Your task to perform on an android device: make emails show in primary in the gmail app Image 0: 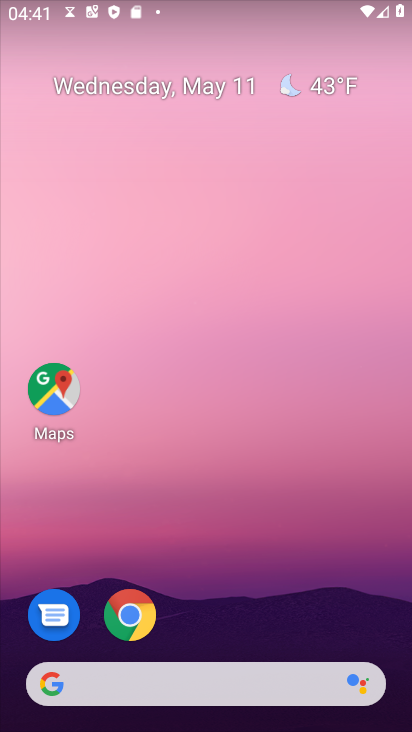
Step 0: drag from (287, 485) to (203, 19)
Your task to perform on an android device: make emails show in primary in the gmail app Image 1: 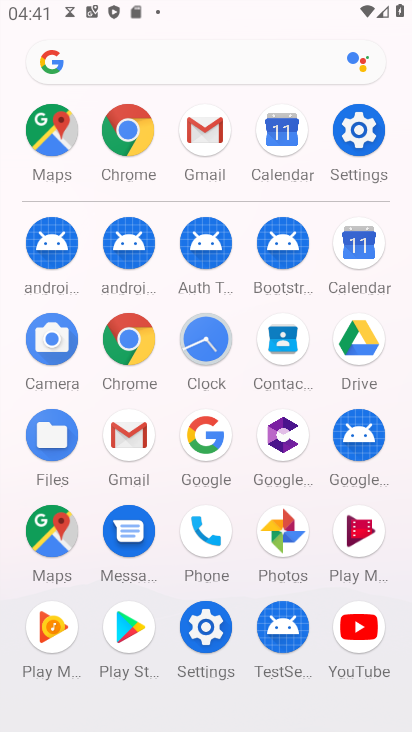
Step 1: drag from (7, 528) to (21, 147)
Your task to perform on an android device: make emails show in primary in the gmail app Image 2: 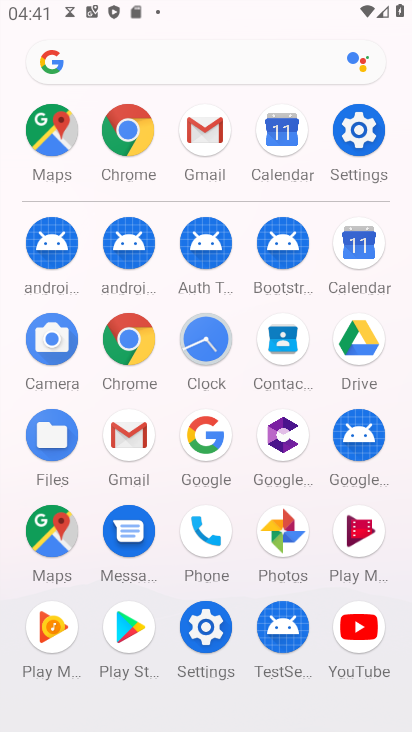
Step 2: click (124, 427)
Your task to perform on an android device: make emails show in primary in the gmail app Image 3: 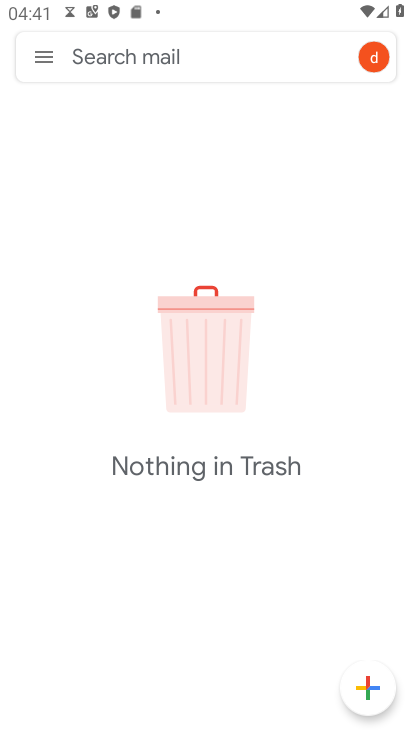
Step 3: click (61, 51)
Your task to perform on an android device: make emails show in primary in the gmail app Image 4: 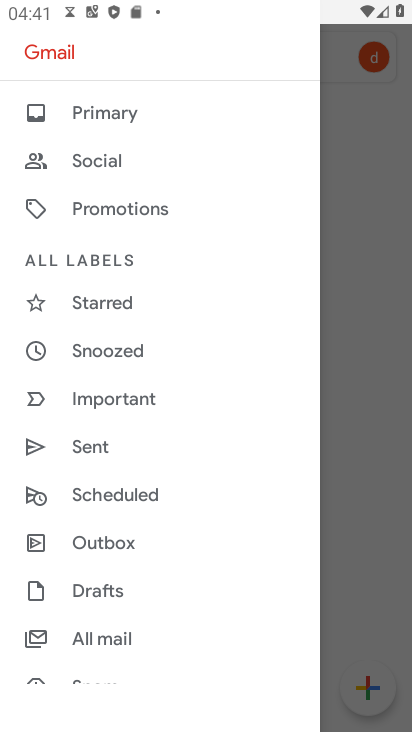
Step 4: click (121, 116)
Your task to perform on an android device: make emails show in primary in the gmail app Image 5: 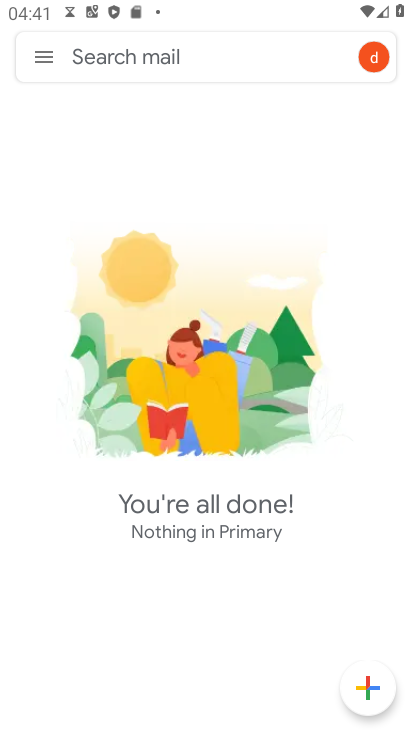
Step 5: click (33, 38)
Your task to perform on an android device: make emails show in primary in the gmail app Image 6: 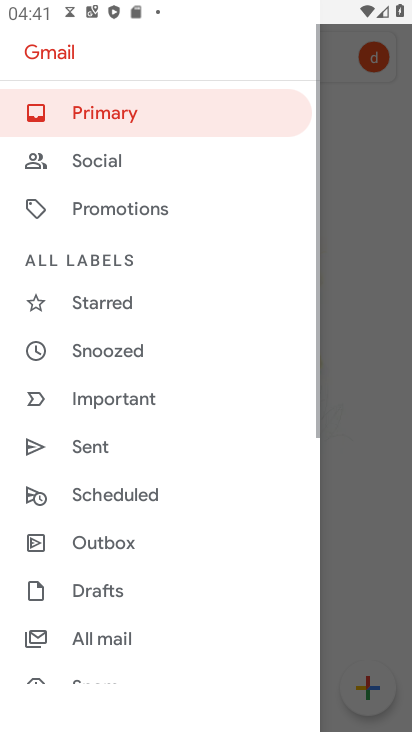
Step 6: drag from (130, 655) to (175, 103)
Your task to perform on an android device: make emails show in primary in the gmail app Image 7: 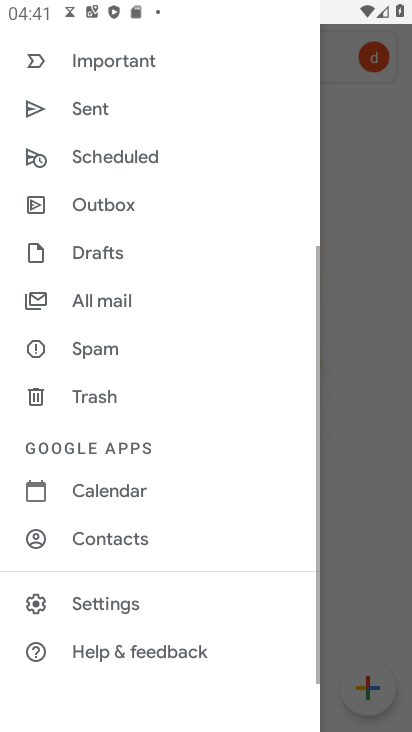
Step 7: click (118, 611)
Your task to perform on an android device: make emails show in primary in the gmail app Image 8: 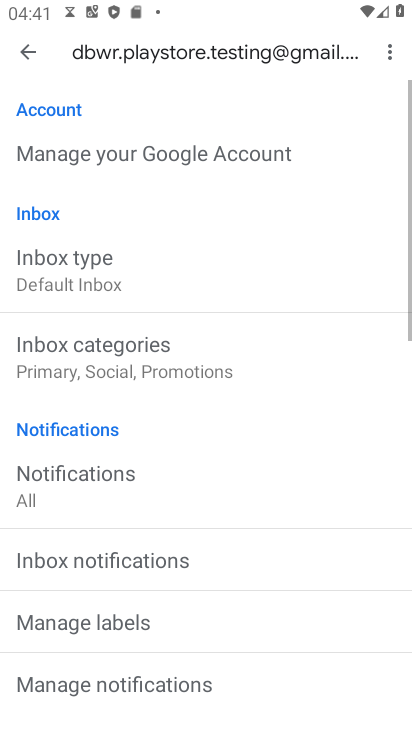
Step 8: click (136, 274)
Your task to perform on an android device: make emails show in primary in the gmail app Image 9: 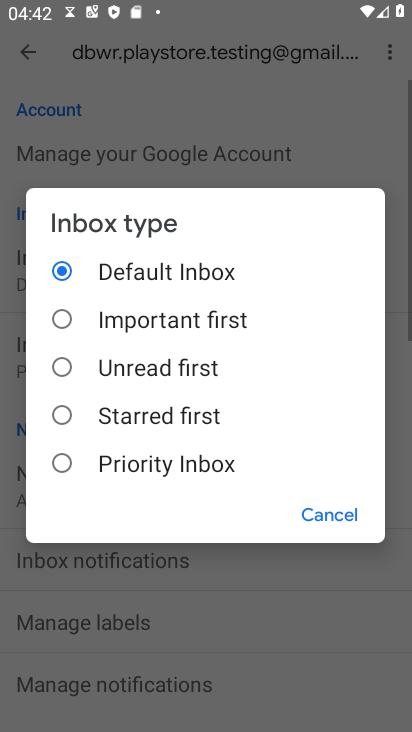
Step 9: click (136, 274)
Your task to perform on an android device: make emails show in primary in the gmail app Image 10: 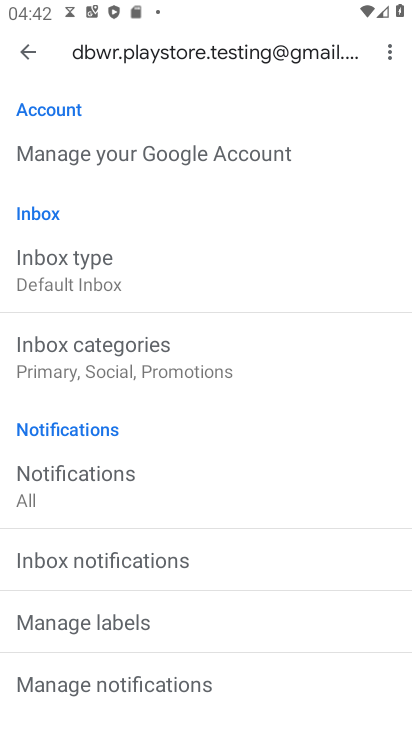
Step 10: click (138, 351)
Your task to perform on an android device: make emails show in primary in the gmail app Image 11: 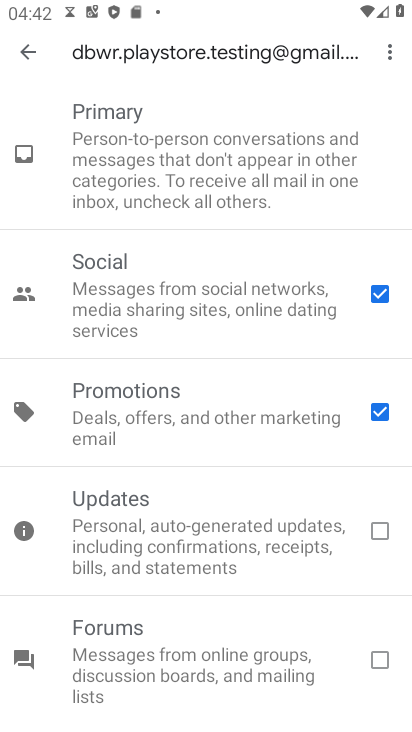
Step 11: click (370, 416)
Your task to perform on an android device: make emails show in primary in the gmail app Image 12: 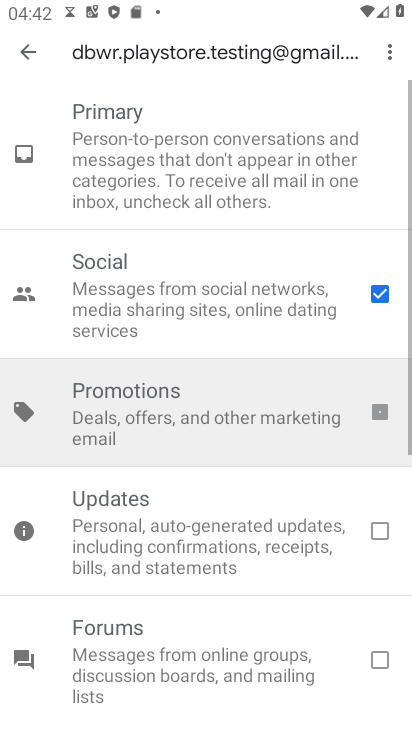
Step 12: click (367, 286)
Your task to perform on an android device: make emails show in primary in the gmail app Image 13: 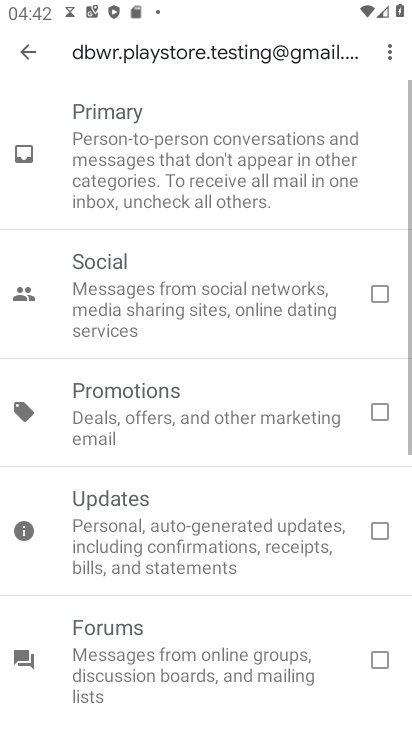
Step 13: click (36, 47)
Your task to perform on an android device: make emails show in primary in the gmail app Image 14: 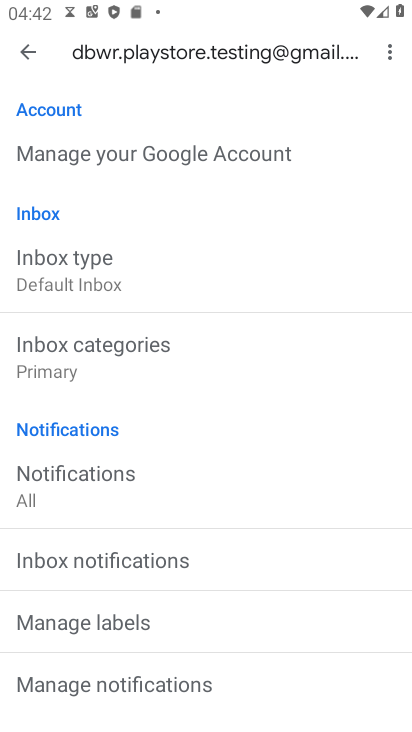
Step 14: task complete